Your task to perform on an android device: Go to ESPN.com Image 0: 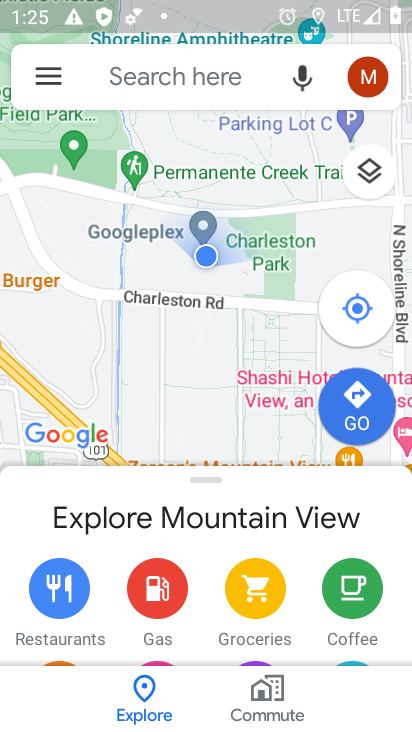
Step 0: press home button
Your task to perform on an android device: Go to ESPN.com Image 1: 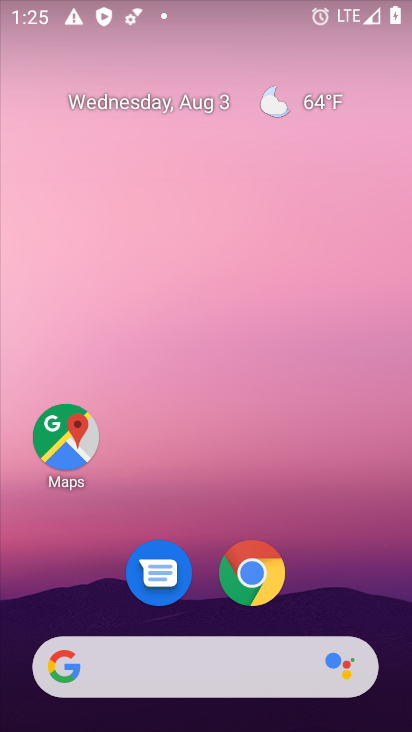
Step 1: drag from (172, 648) to (250, 46)
Your task to perform on an android device: Go to ESPN.com Image 2: 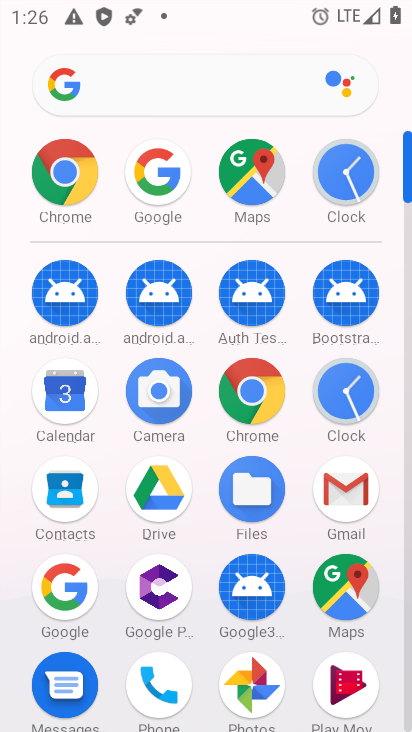
Step 2: click (80, 177)
Your task to perform on an android device: Go to ESPN.com Image 3: 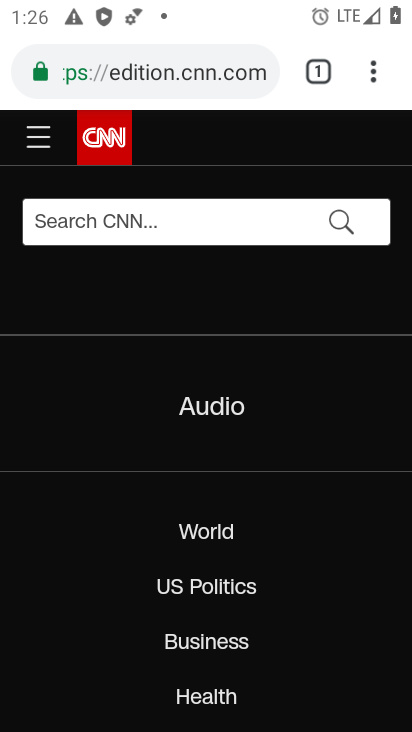
Step 3: click (93, 74)
Your task to perform on an android device: Go to ESPN.com Image 4: 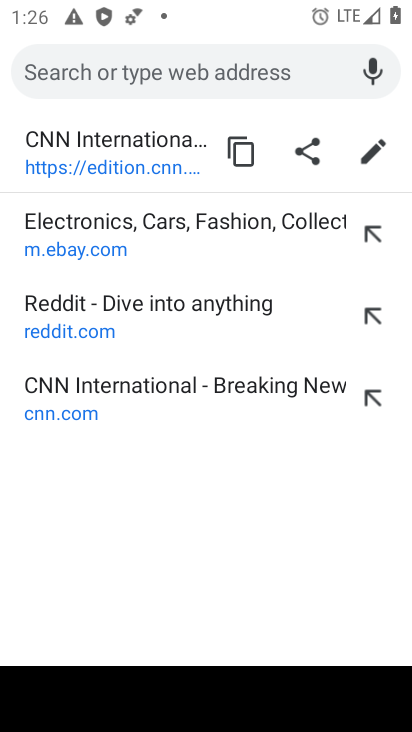
Step 4: type "espn"
Your task to perform on an android device: Go to ESPN.com Image 5: 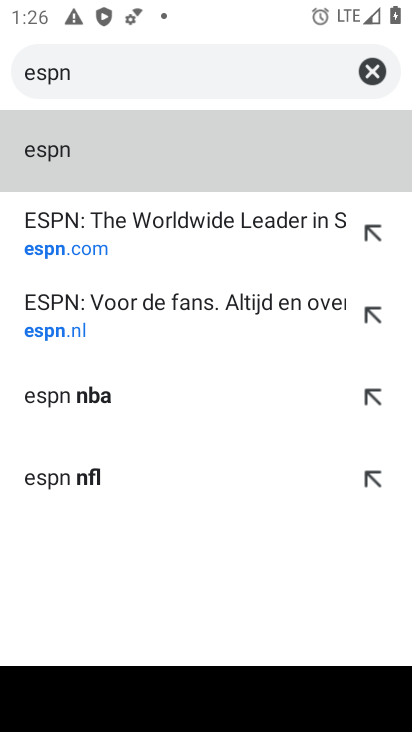
Step 5: click (177, 231)
Your task to perform on an android device: Go to ESPN.com Image 6: 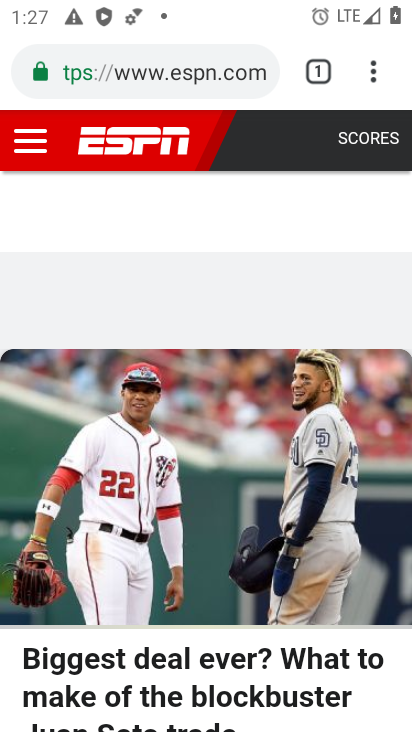
Step 6: task complete